Your task to perform on an android device: Go to Amazon Image 0: 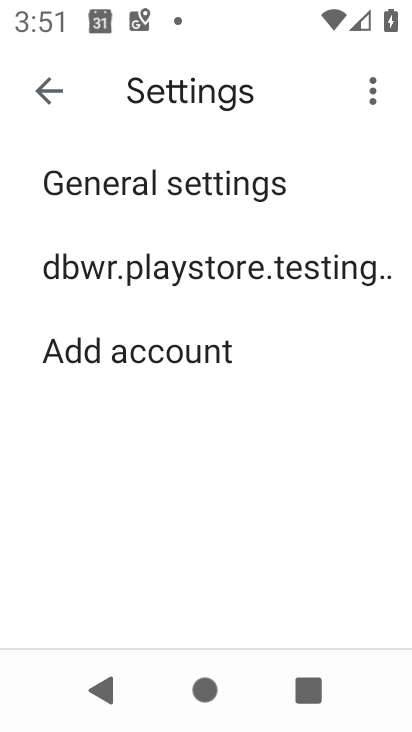
Step 0: press home button
Your task to perform on an android device: Go to Amazon Image 1: 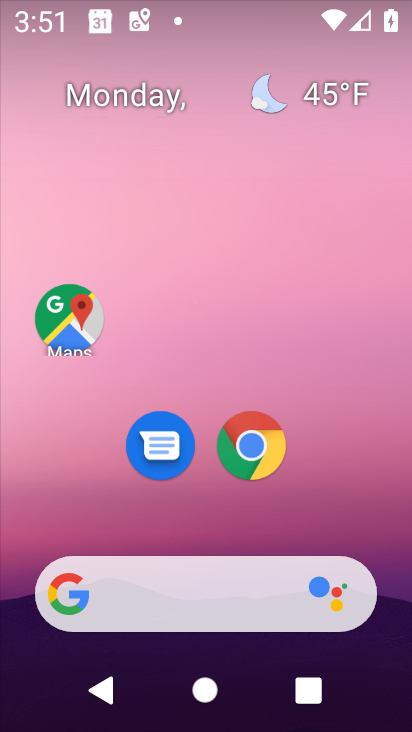
Step 1: click (233, 435)
Your task to perform on an android device: Go to Amazon Image 2: 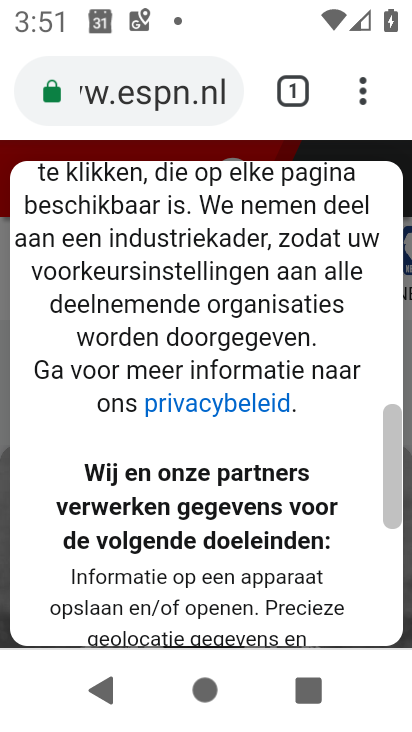
Step 2: click (94, 95)
Your task to perform on an android device: Go to Amazon Image 3: 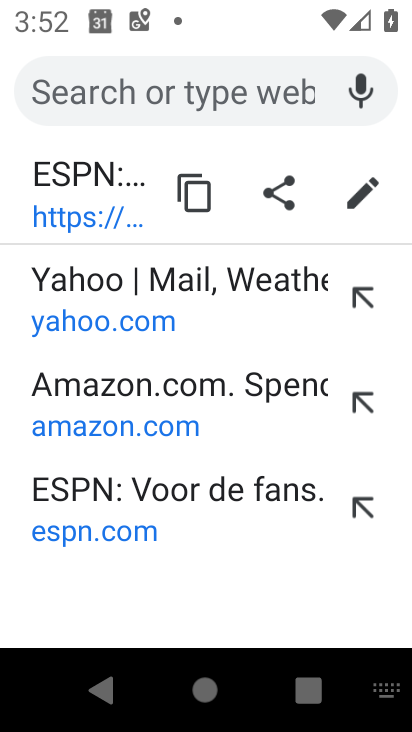
Step 3: type "amazon"
Your task to perform on an android device: Go to Amazon Image 4: 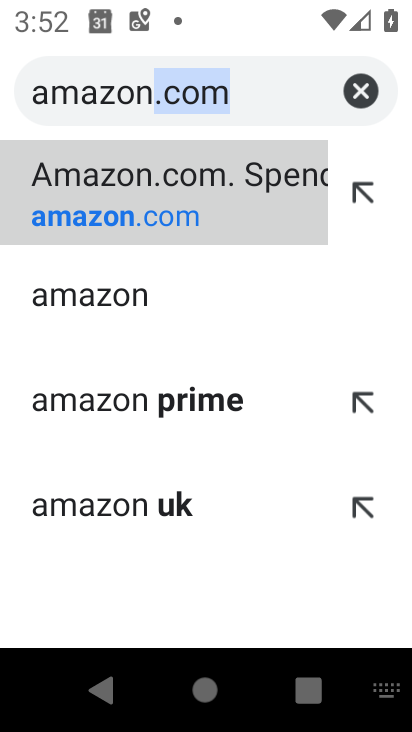
Step 4: click (84, 180)
Your task to perform on an android device: Go to Amazon Image 5: 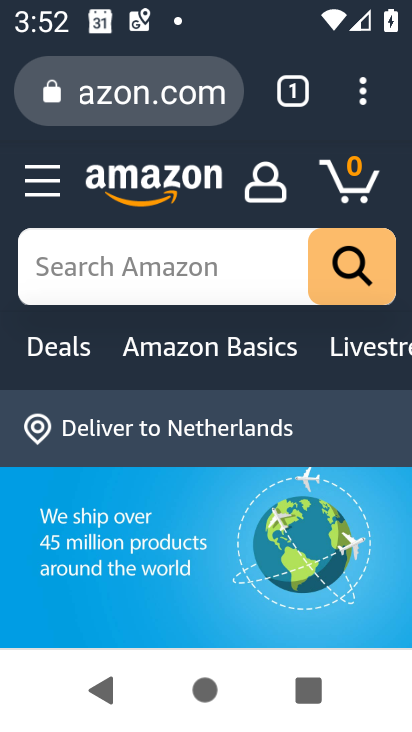
Step 5: task complete